Your task to perform on an android device: Open Amazon Image 0: 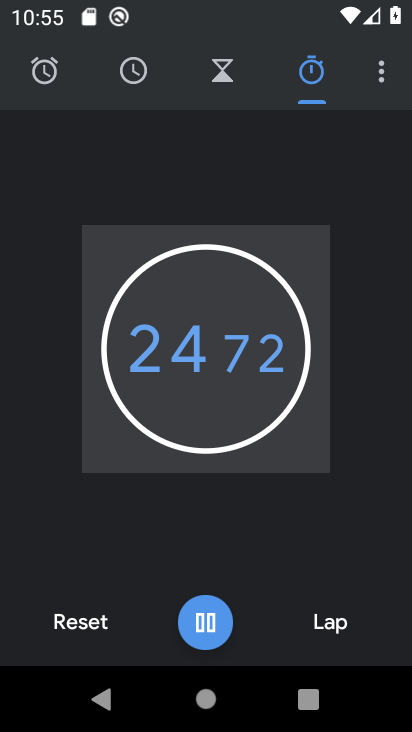
Step 0: press home button
Your task to perform on an android device: Open Amazon Image 1: 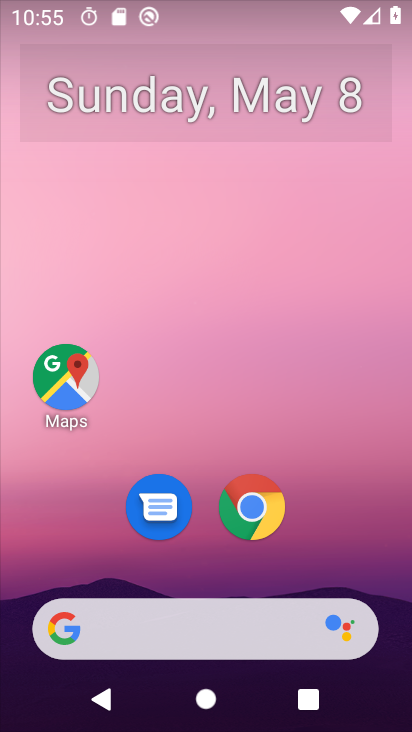
Step 1: click (248, 507)
Your task to perform on an android device: Open Amazon Image 2: 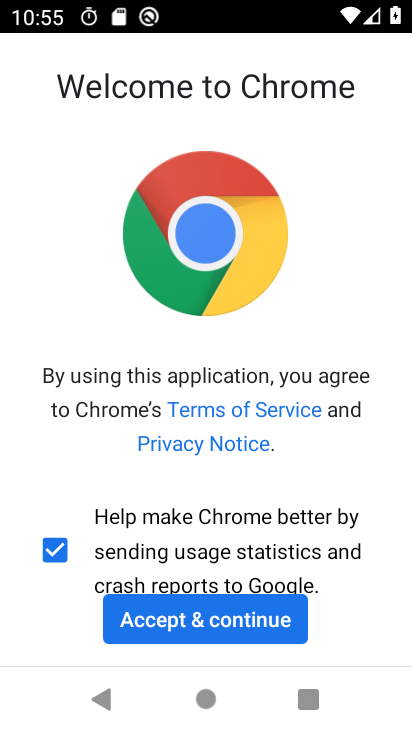
Step 2: click (173, 618)
Your task to perform on an android device: Open Amazon Image 3: 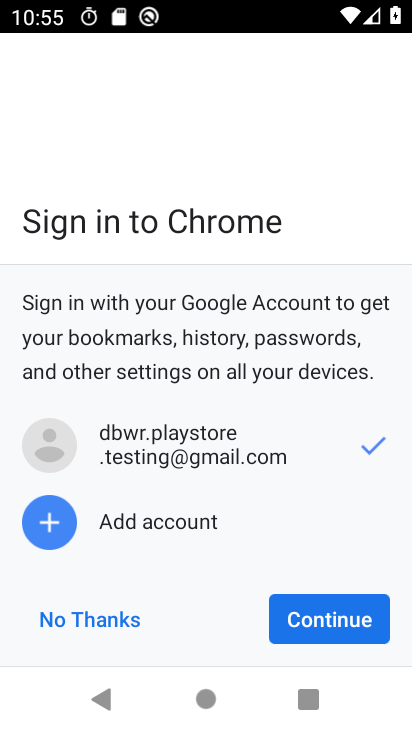
Step 3: click (333, 626)
Your task to perform on an android device: Open Amazon Image 4: 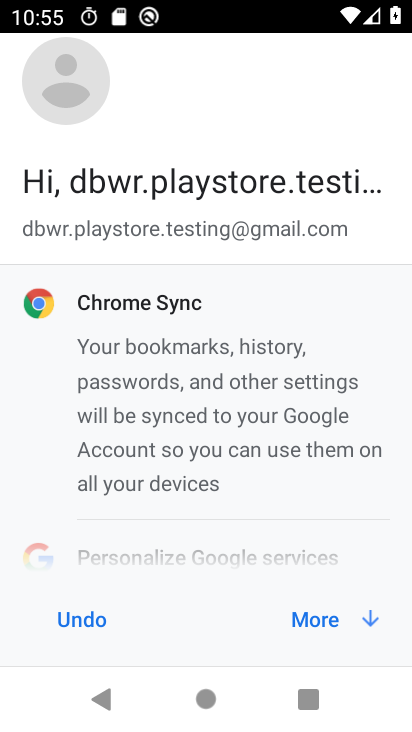
Step 4: click (315, 621)
Your task to perform on an android device: Open Amazon Image 5: 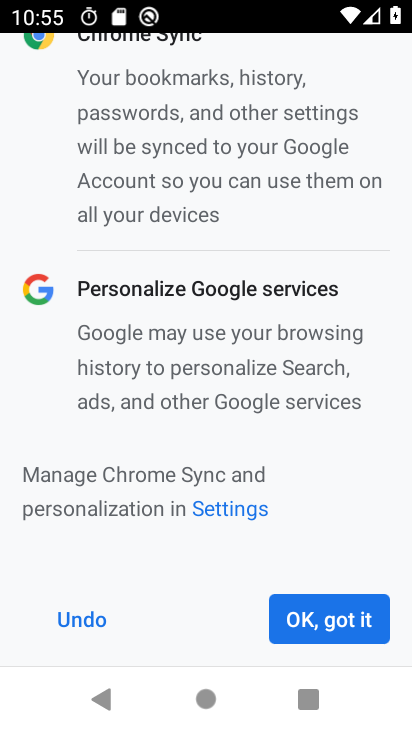
Step 5: click (332, 617)
Your task to perform on an android device: Open Amazon Image 6: 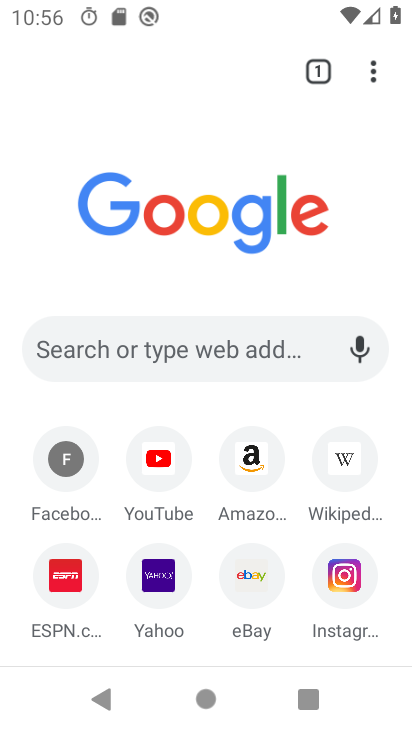
Step 6: click (249, 467)
Your task to perform on an android device: Open Amazon Image 7: 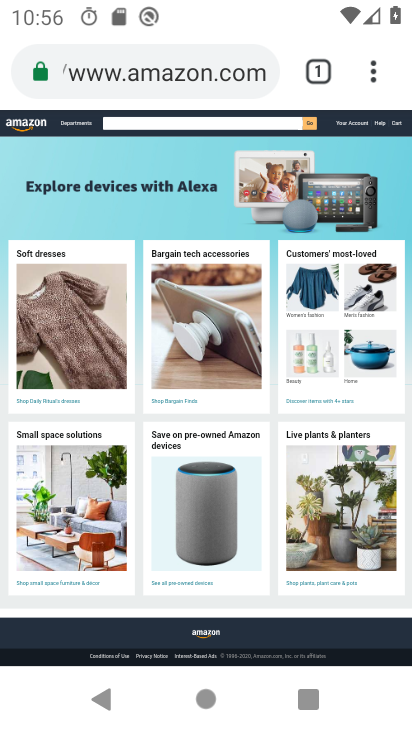
Step 7: task complete